Your task to perform on an android device: Toggle the flashlight Image 0: 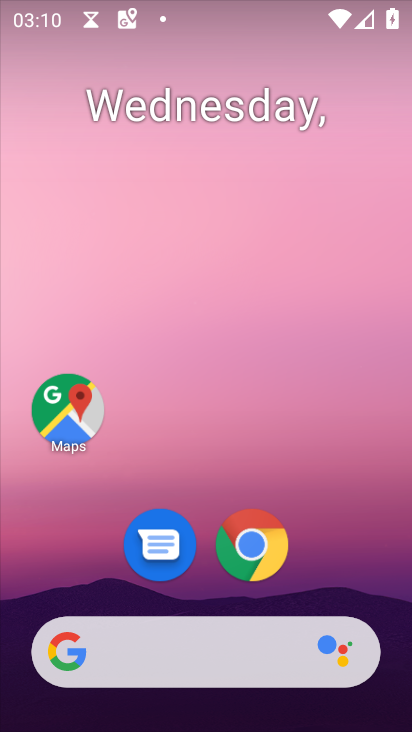
Step 0: press home button
Your task to perform on an android device: Toggle the flashlight Image 1: 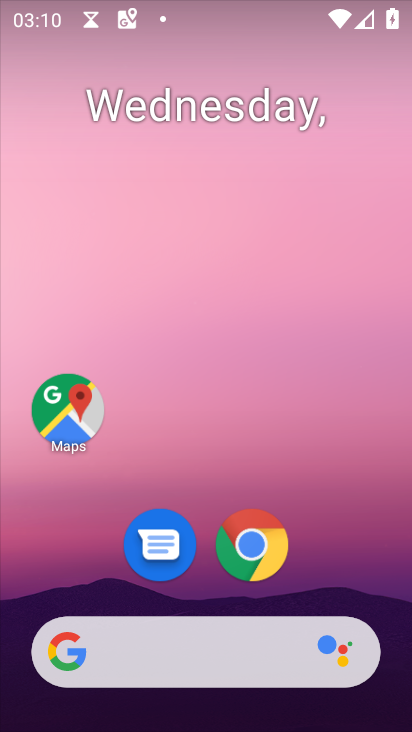
Step 1: task complete